Your task to perform on an android device: turn off location Image 0: 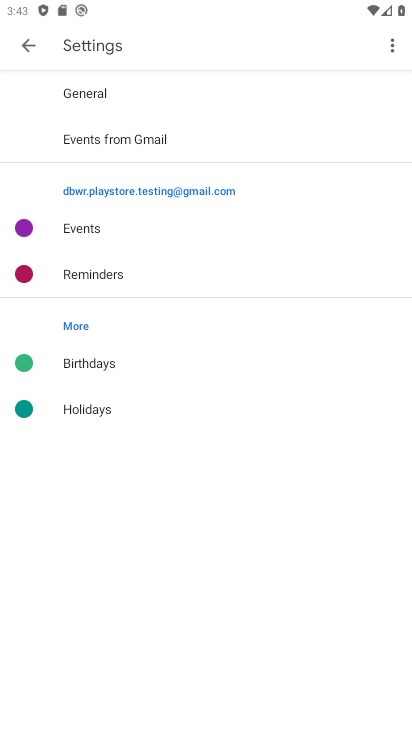
Step 0: press back button
Your task to perform on an android device: turn off location Image 1: 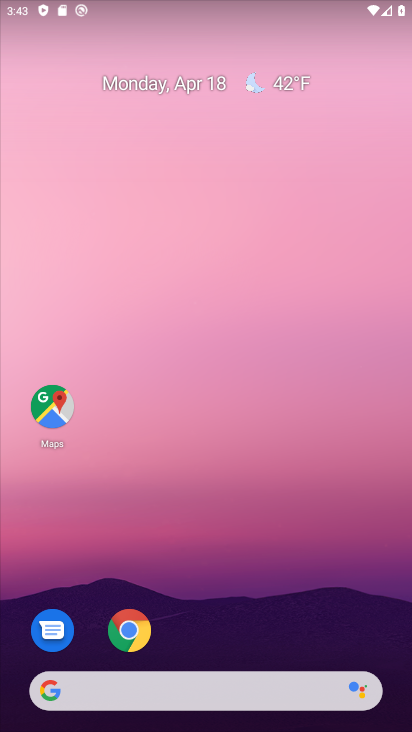
Step 1: drag from (165, 650) to (245, 162)
Your task to perform on an android device: turn off location Image 2: 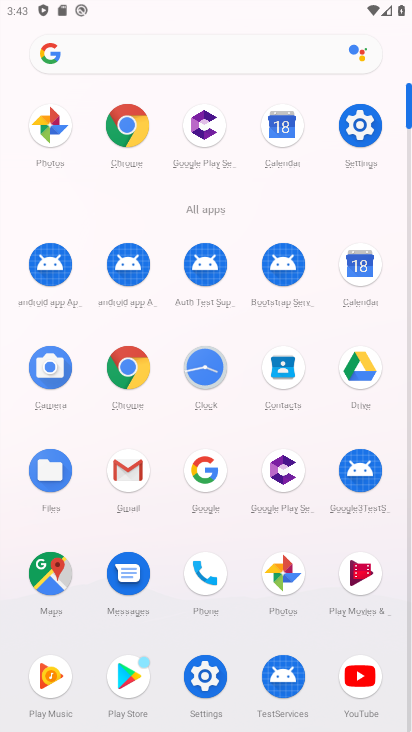
Step 2: click (202, 685)
Your task to perform on an android device: turn off location Image 3: 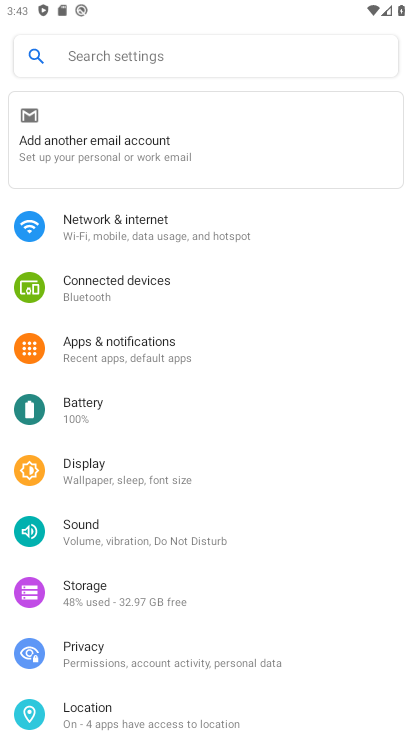
Step 3: drag from (133, 663) to (264, 256)
Your task to perform on an android device: turn off location Image 4: 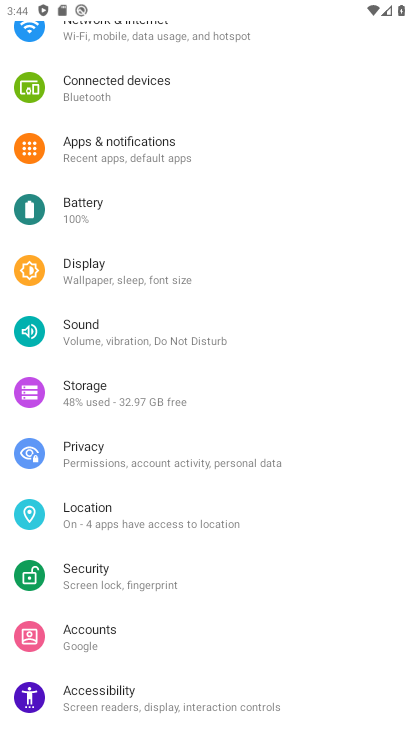
Step 4: click (148, 526)
Your task to perform on an android device: turn off location Image 5: 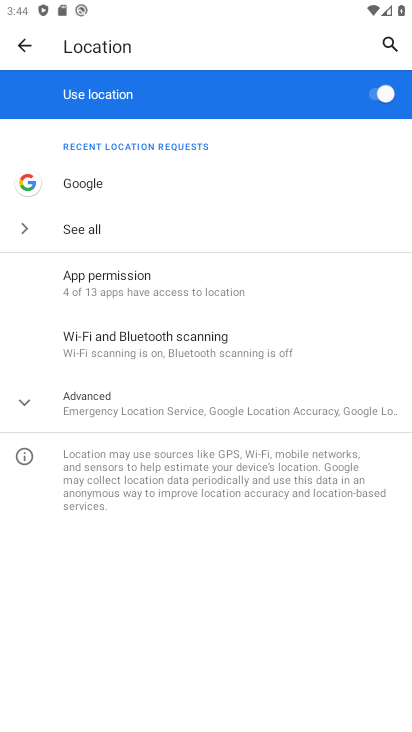
Step 5: click (373, 91)
Your task to perform on an android device: turn off location Image 6: 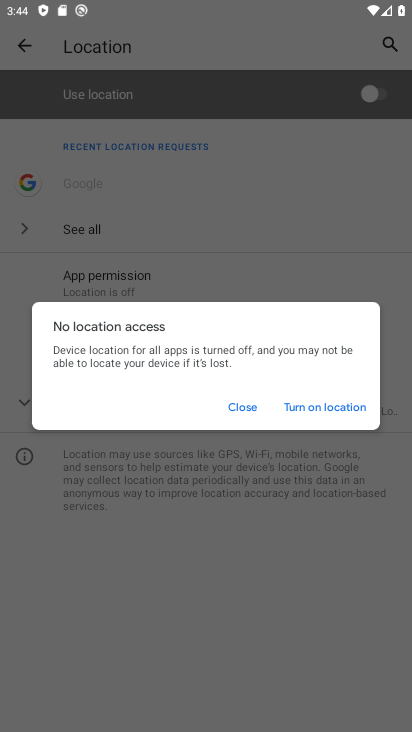
Step 6: click (243, 400)
Your task to perform on an android device: turn off location Image 7: 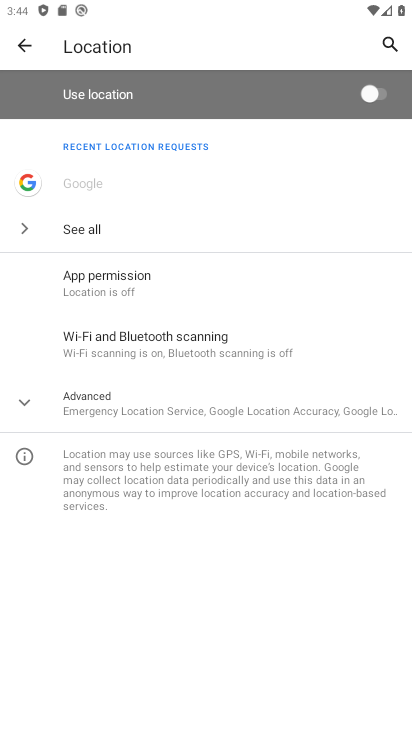
Step 7: task complete